Your task to perform on an android device: Go to Yahoo.com Image 0: 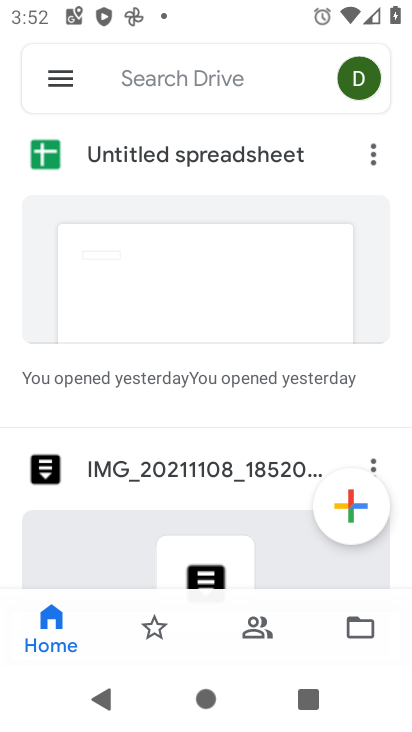
Step 0: press home button
Your task to perform on an android device: Go to Yahoo.com Image 1: 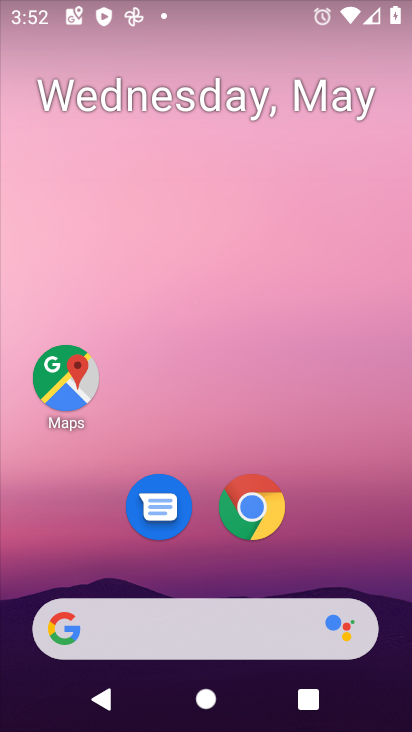
Step 1: click (240, 503)
Your task to perform on an android device: Go to Yahoo.com Image 2: 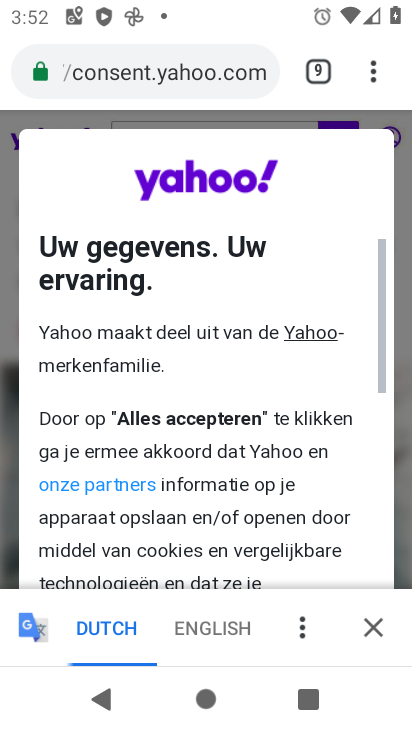
Step 2: task complete